Your task to perform on an android device: change text size in settings app Image 0: 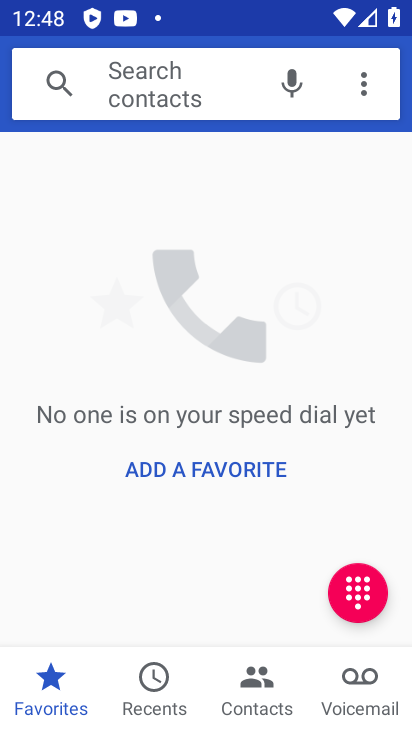
Step 0: press home button
Your task to perform on an android device: change text size in settings app Image 1: 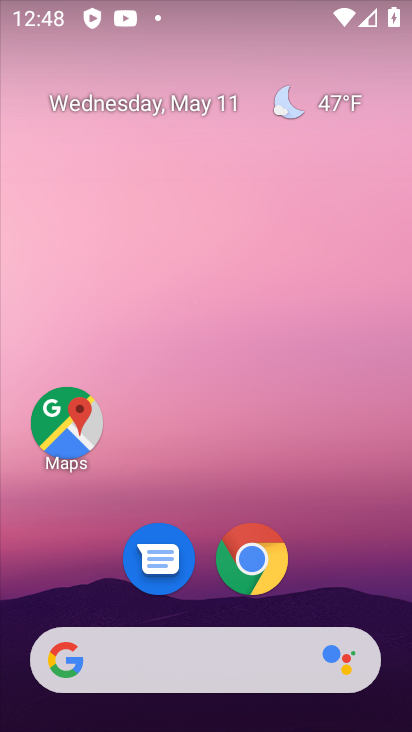
Step 1: drag from (195, 492) to (205, 80)
Your task to perform on an android device: change text size in settings app Image 2: 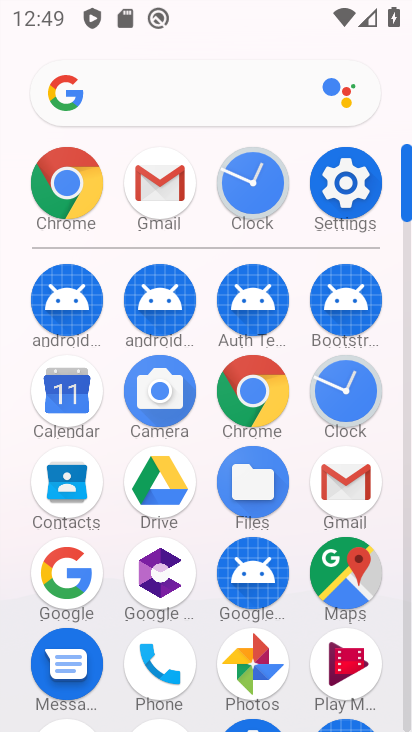
Step 2: click (355, 185)
Your task to perform on an android device: change text size in settings app Image 3: 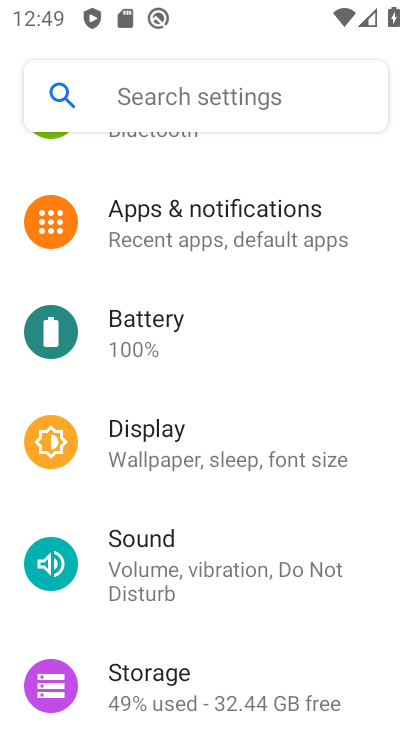
Step 3: click (176, 451)
Your task to perform on an android device: change text size in settings app Image 4: 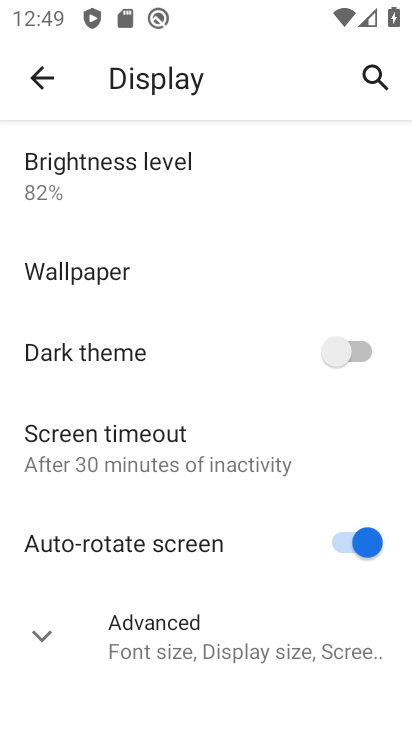
Step 4: click (169, 648)
Your task to perform on an android device: change text size in settings app Image 5: 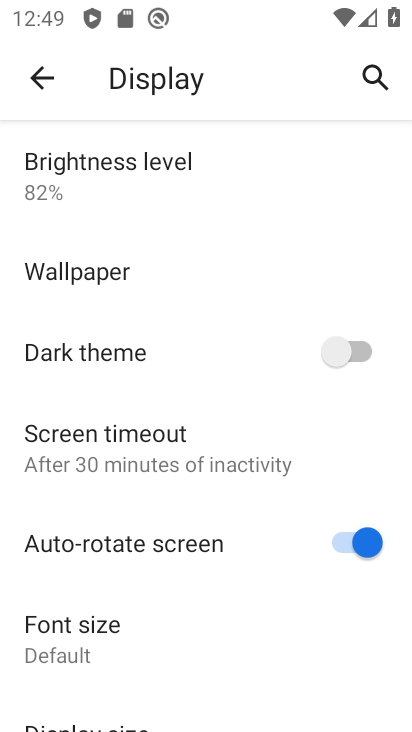
Step 5: click (107, 647)
Your task to perform on an android device: change text size in settings app Image 6: 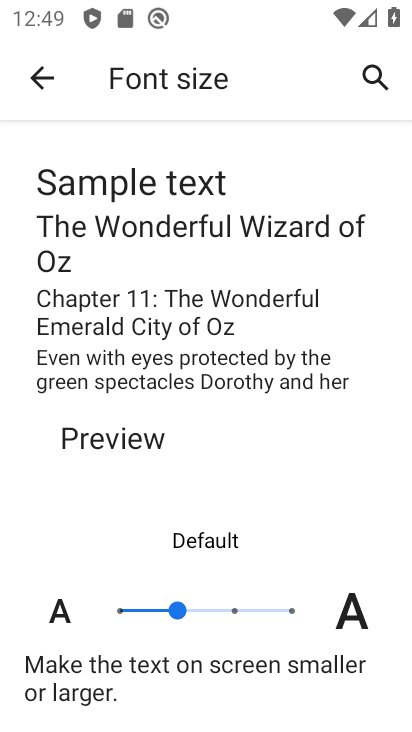
Step 6: click (228, 616)
Your task to perform on an android device: change text size in settings app Image 7: 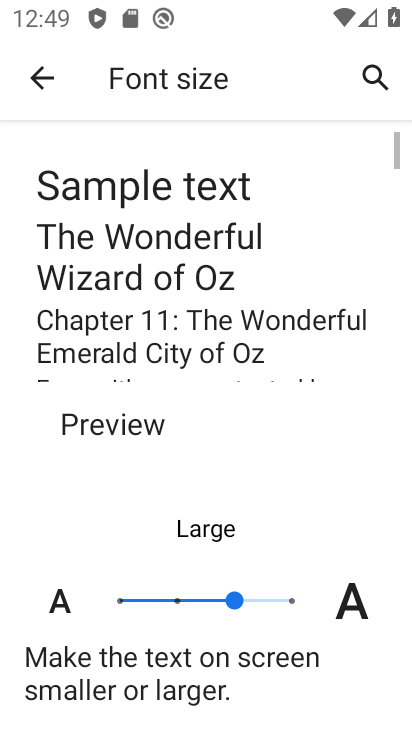
Step 7: task complete